Your task to perform on an android device: turn vacation reply on in the gmail app Image 0: 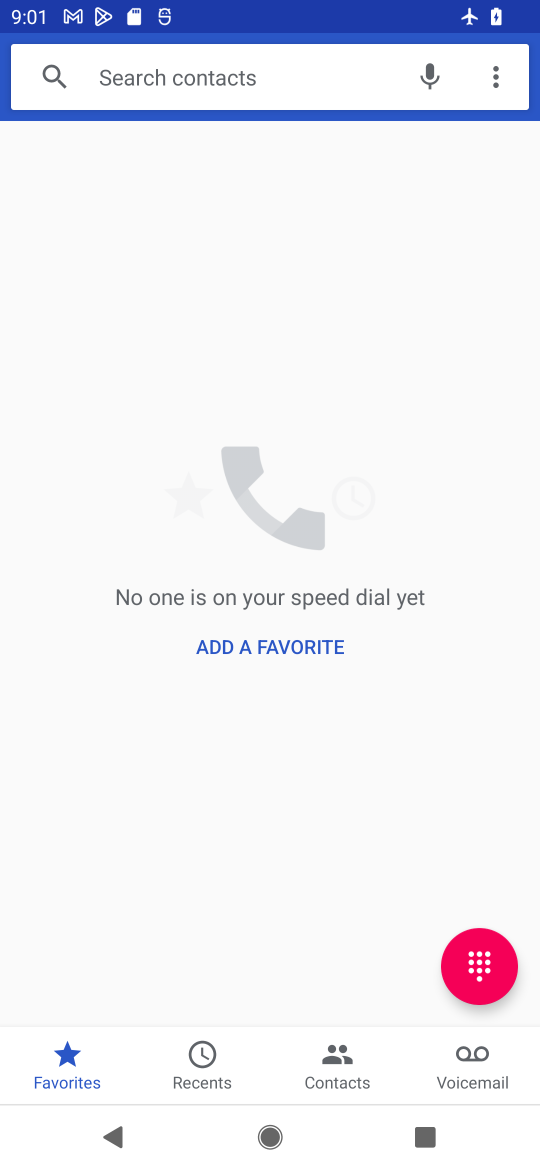
Step 0: press home button
Your task to perform on an android device: turn vacation reply on in the gmail app Image 1: 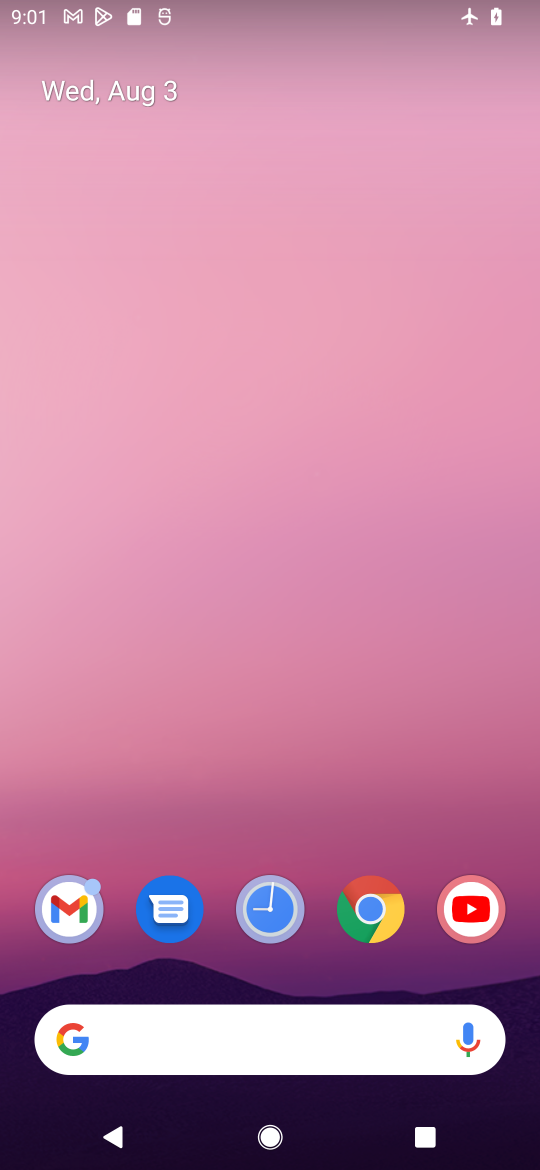
Step 1: drag from (411, 806) to (423, 365)
Your task to perform on an android device: turn vacation reply on in the gmail app Image 2: 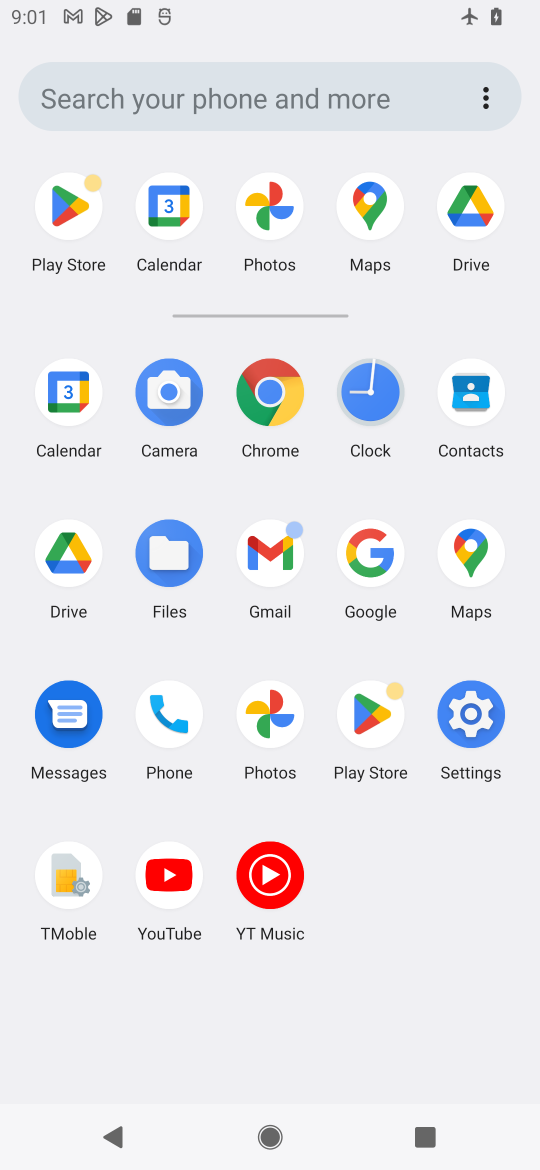
Step 2: click (272, 557)
Your task to perform on an android device: turn vacation reply on in the gmail app Image 3: 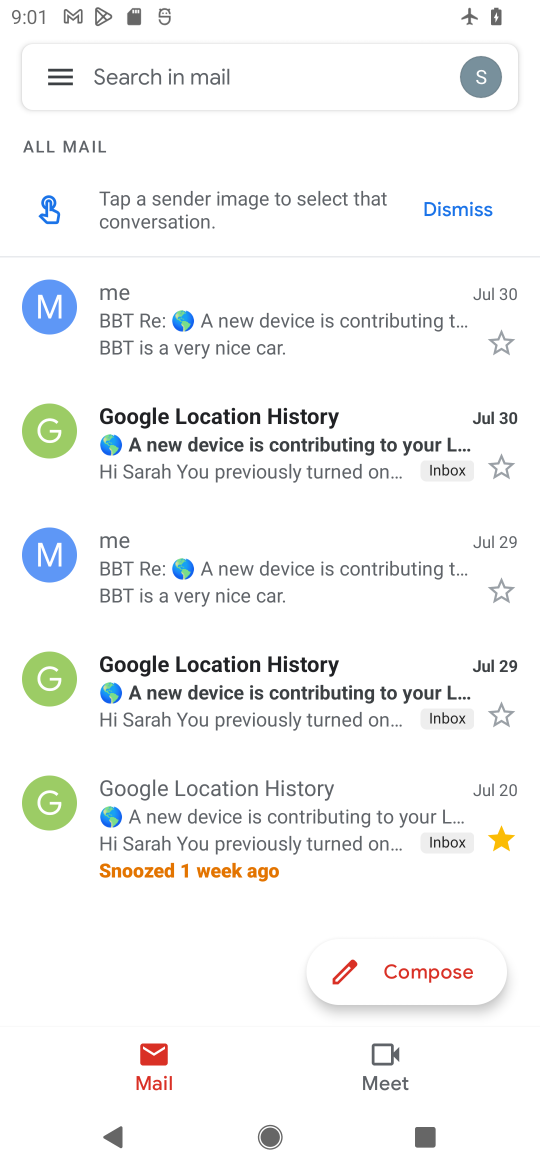
Step 3: click (62, 73)
Your task to perform on an android device: turn vacation reply on in the gmail app Image 4: 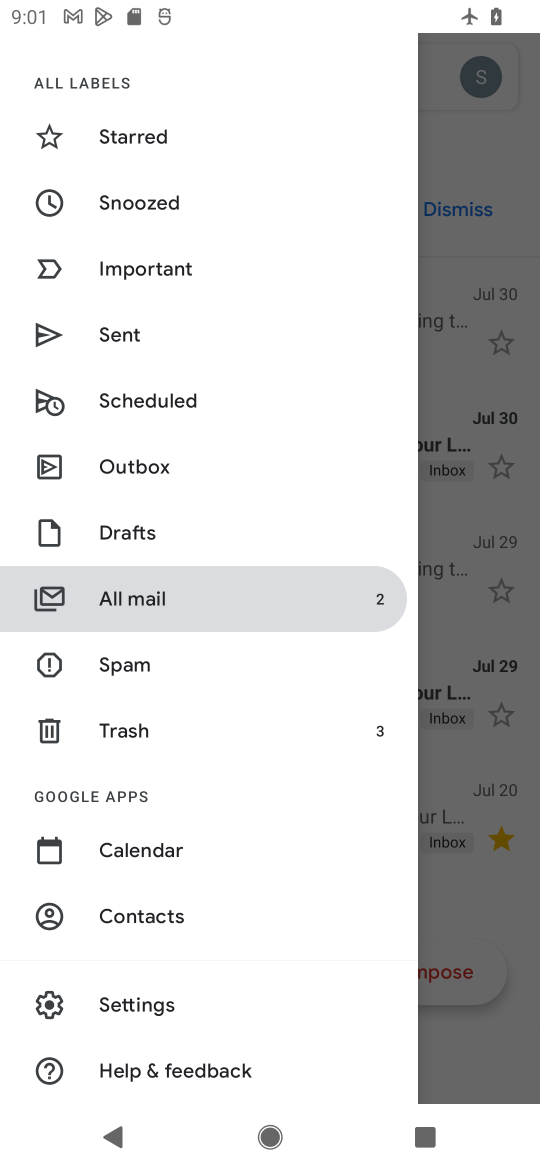
Step 4: drag from (324, 339) to (307, 511)
Your task to perform on an android device: turn vacation reply on in the gmail app Image 5: 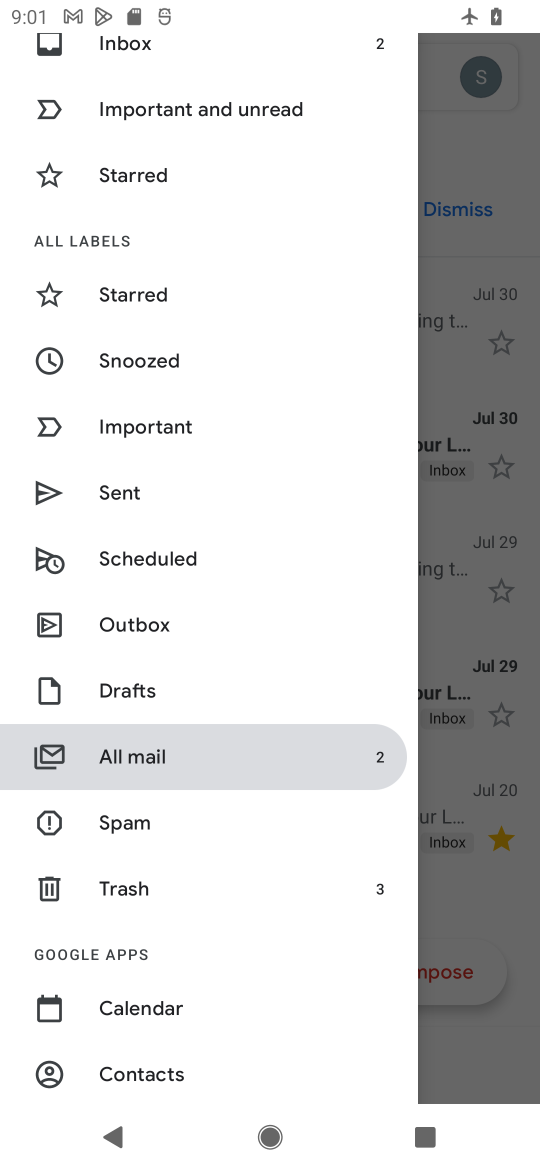
Step 5: drag from (308, 279) to (317, 480)
Your task to perform on an android device: turn vacation reply on in the gmail app Image 6: 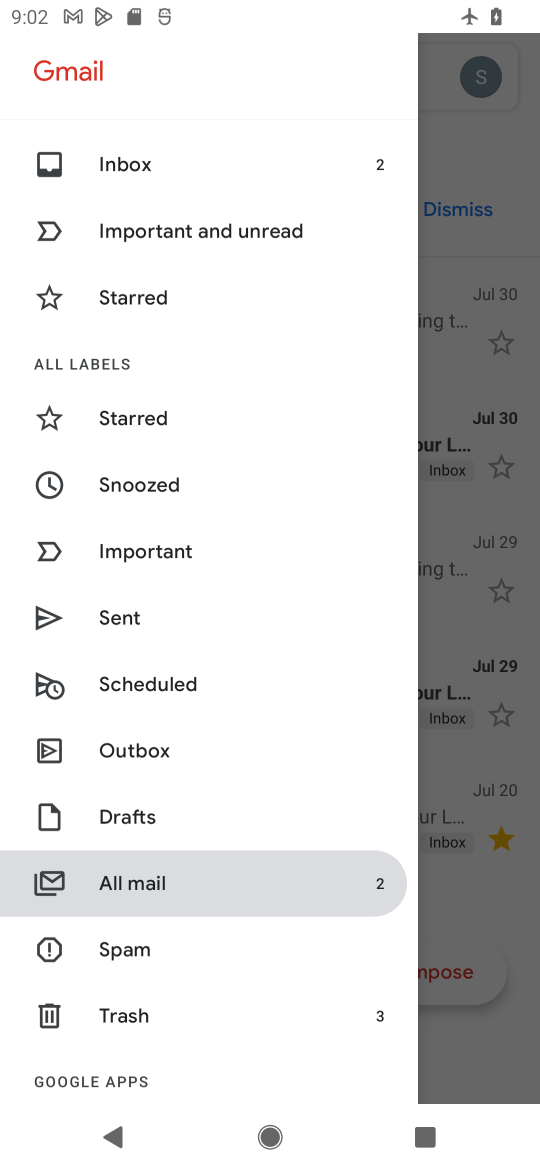
Step 6: drag from (317, 556) to (324, 483)
Your task to perform on an android device: turn vacation reply on in the gmail app Image 7: 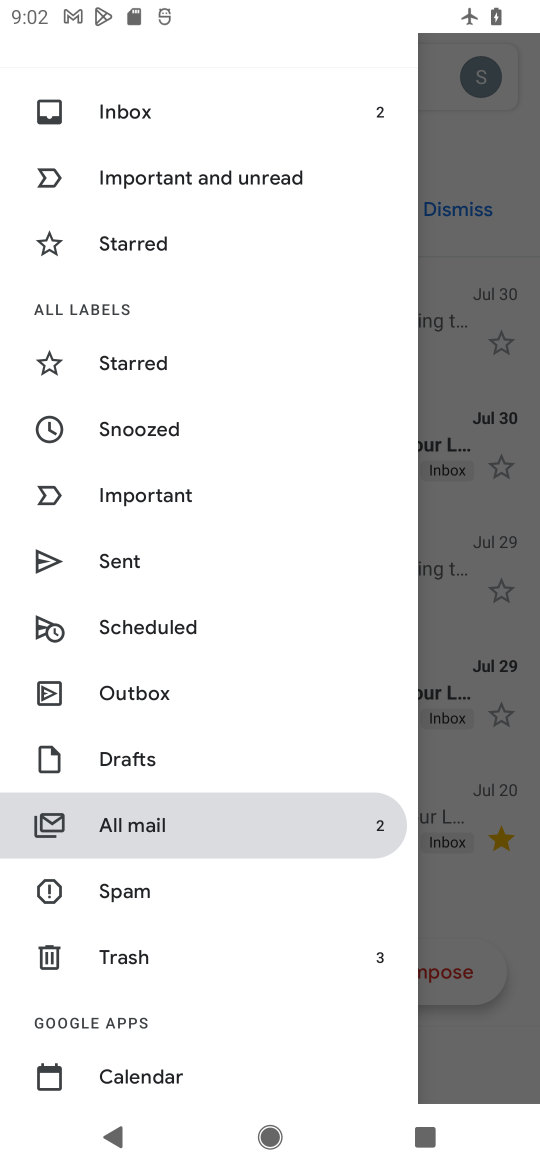
Step 7: drag from (301, 627) to (318, 516)
Your task to perform on an android device: turn vacation reply on in the gmail app Image 8: 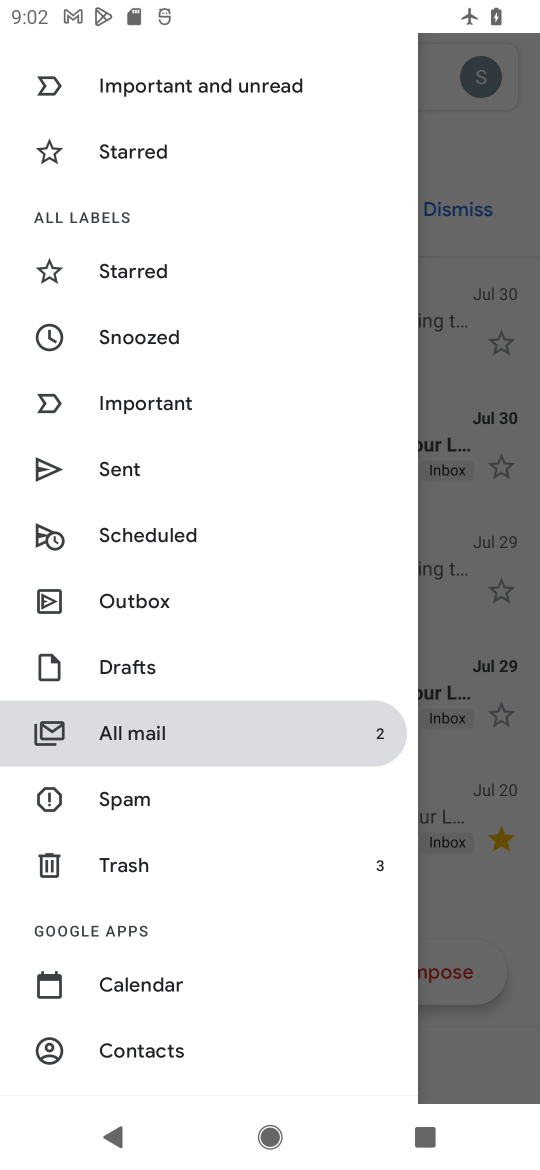
Step 8: drag from (259, 924) to (263, 691)
Your task to perform on an android device: turn vacation reply on in the gmail app Image 9: 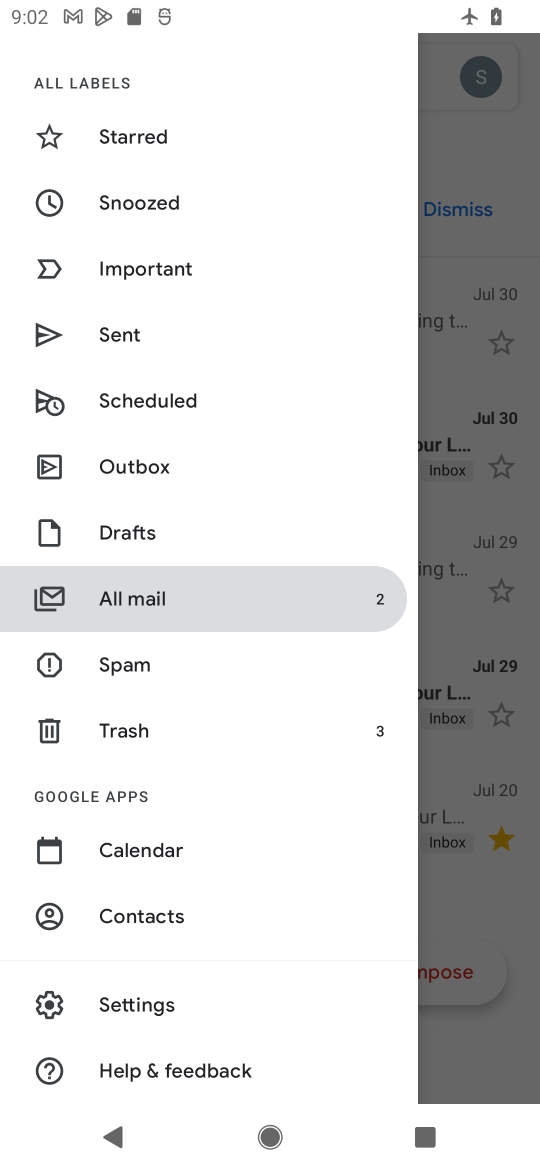
Step 9: click (165, 1013)
Your task to perform on an android device: turn vacation reply on in the gmail app Image 10: 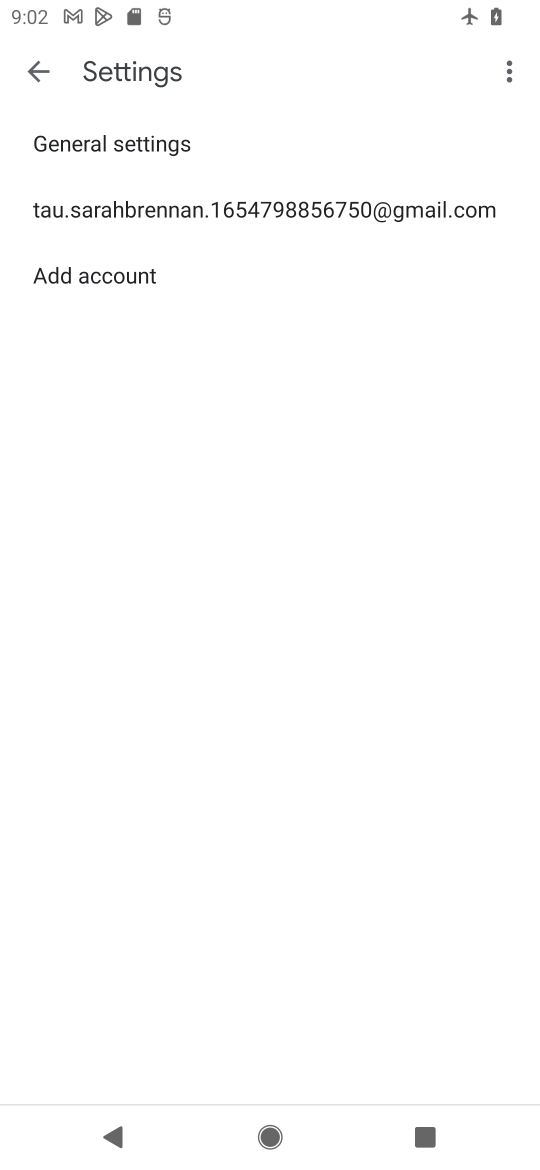
Step 10: click (286, 202)
Your task to perform on an android device: turn vacation reply on in the gmail app Image 11: 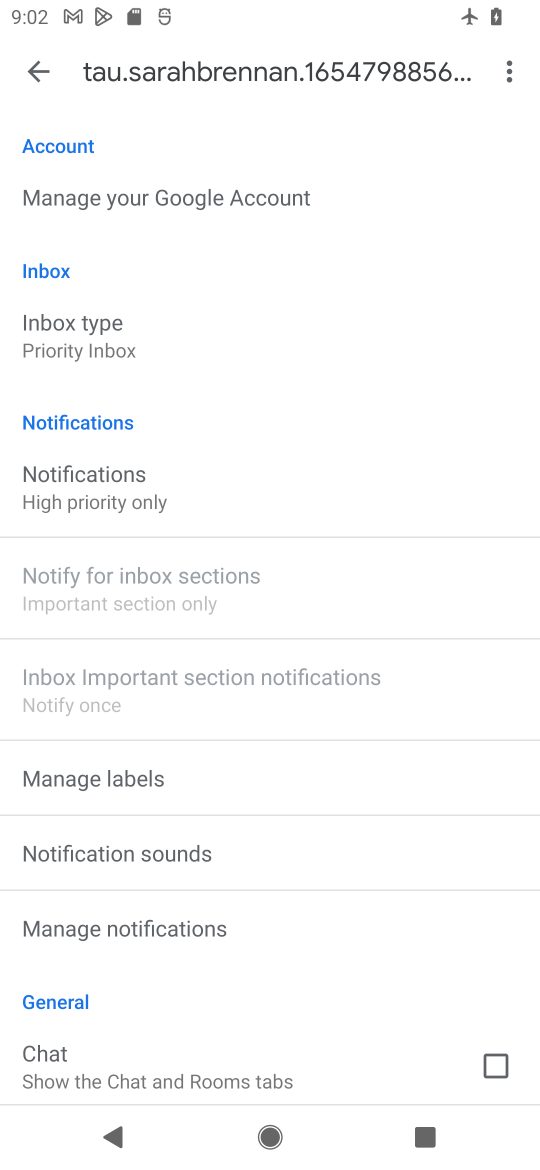
Step 11: drag from (464, 600) to (443, 432)
Your task to perform on an android device: turn vacation reply on in the gmail app Image 12: 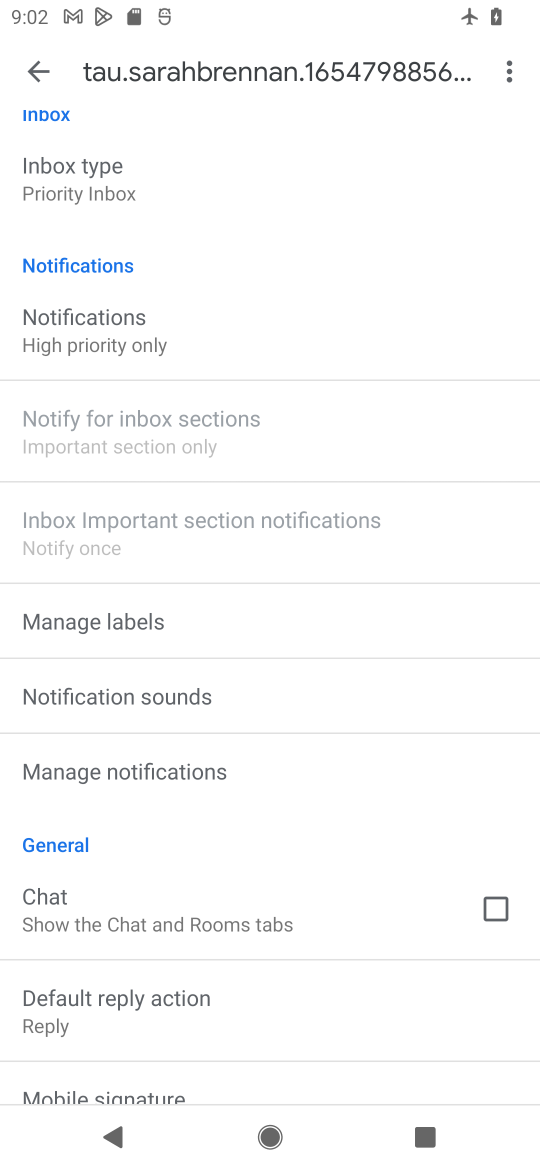
Step 12: drag from (438, 651) to (441, 476)
Your task to perform on an android device: turn vacation reply on in the gmail app Image 13: 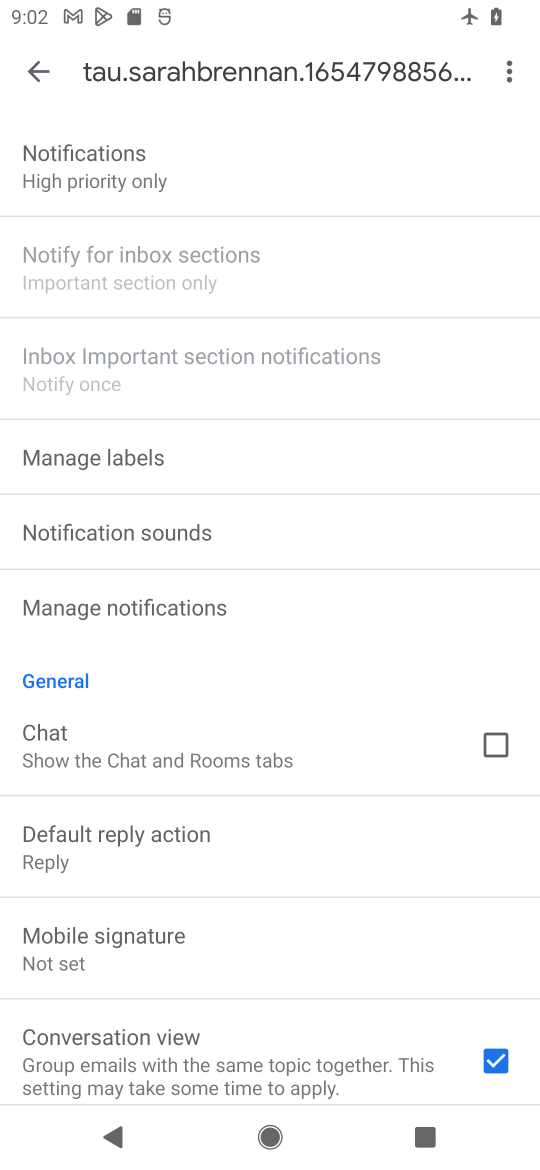
Step 13: drag from (417, 686) to (427, 570)
Your task to perform on an android device: turn vacation reply on in the gmail app Image 14: 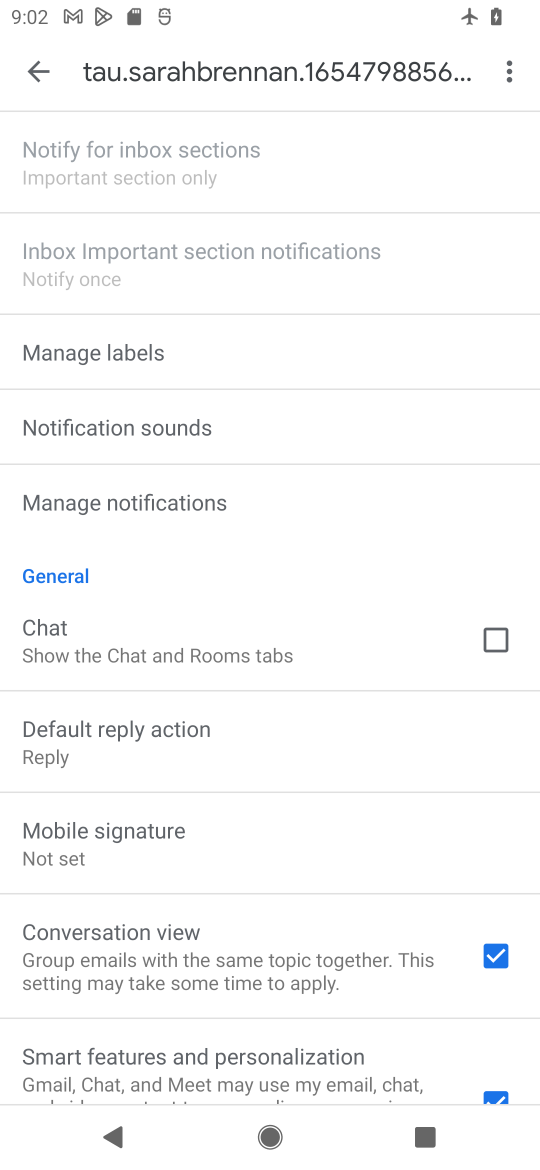
Step 14: drag from (373, 723) to (383, 531)
Your task to perform on an android device: turn vacation reply on in the gmail app Image 15: 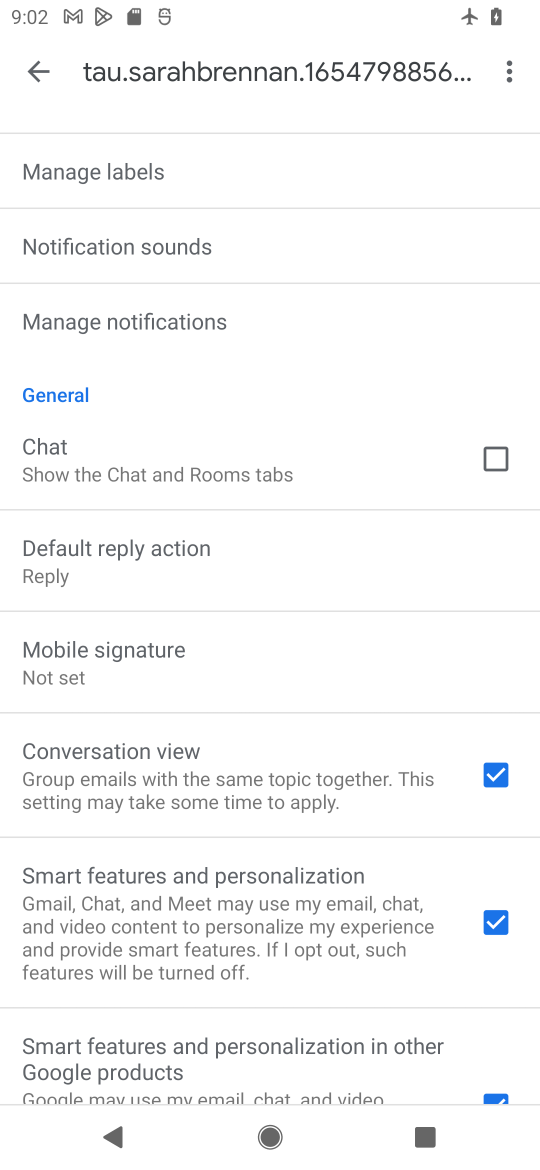
Step 15: drag from (367, 833) to (382, 636)
Your task to perform on an android device: turn vacation reply on in the gmail app Image 16: 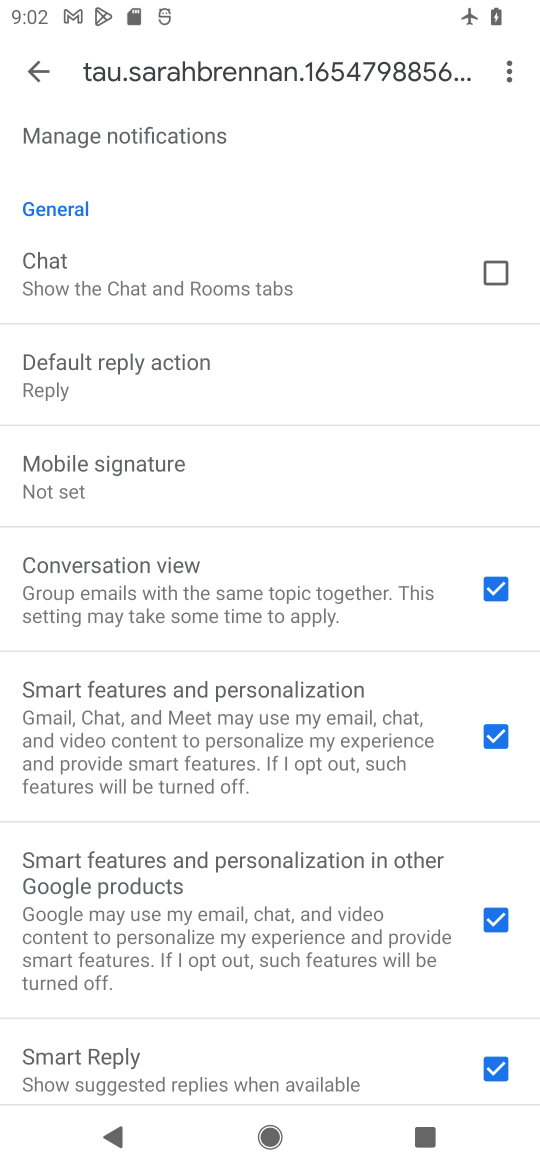
Step 16: drag from (350, 809) to (356, 596)
Your task to perform on an android device: turn vacation reply on in the gmail app Image 17: 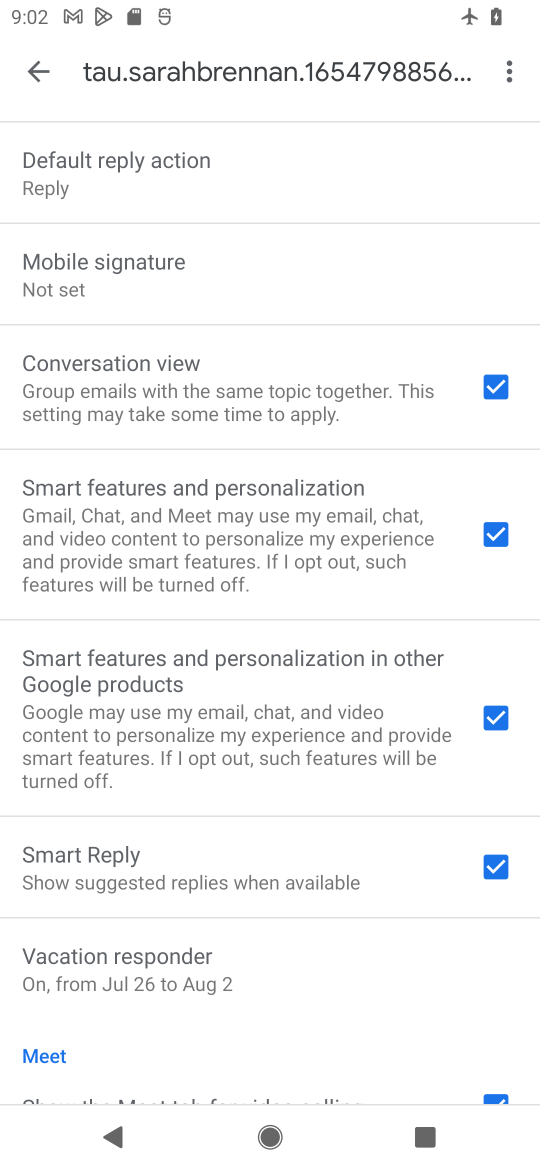
Step 17: drag from (325, 853) to (345, 659)
Your task to perform on an android device: turn vacation reply on in the gmail app Image 18: 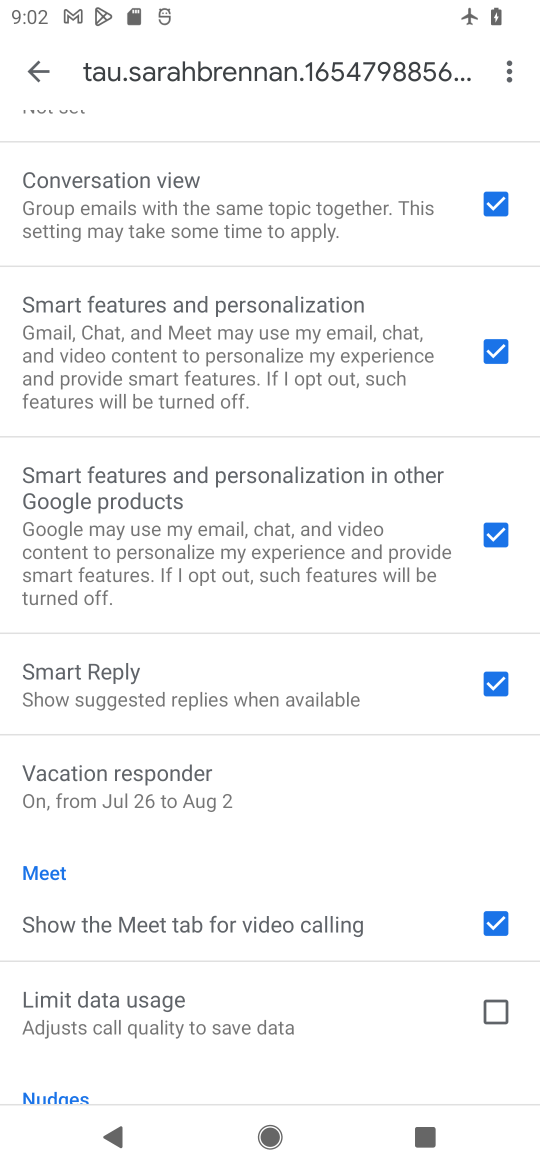
Step 18: drag from (377, 477) to (377, 702)
Your task to perform on an android device: turn vacation reply on in the gmail app Image 19: 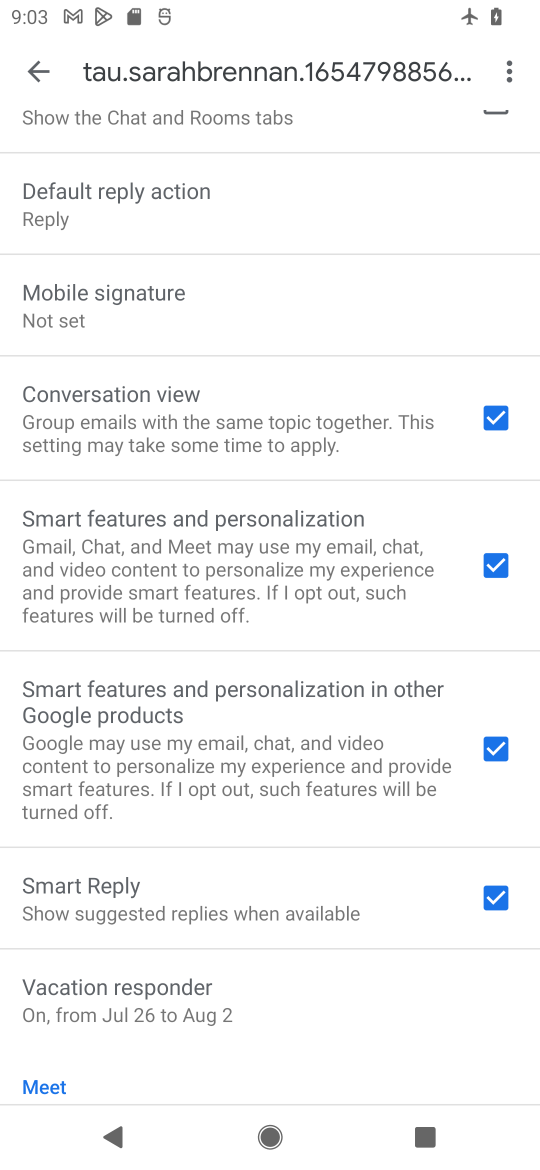
Step 19: click (202, 1015)
Your task to perform on an android device: turn vacation reply on in the gmail app Image 20: 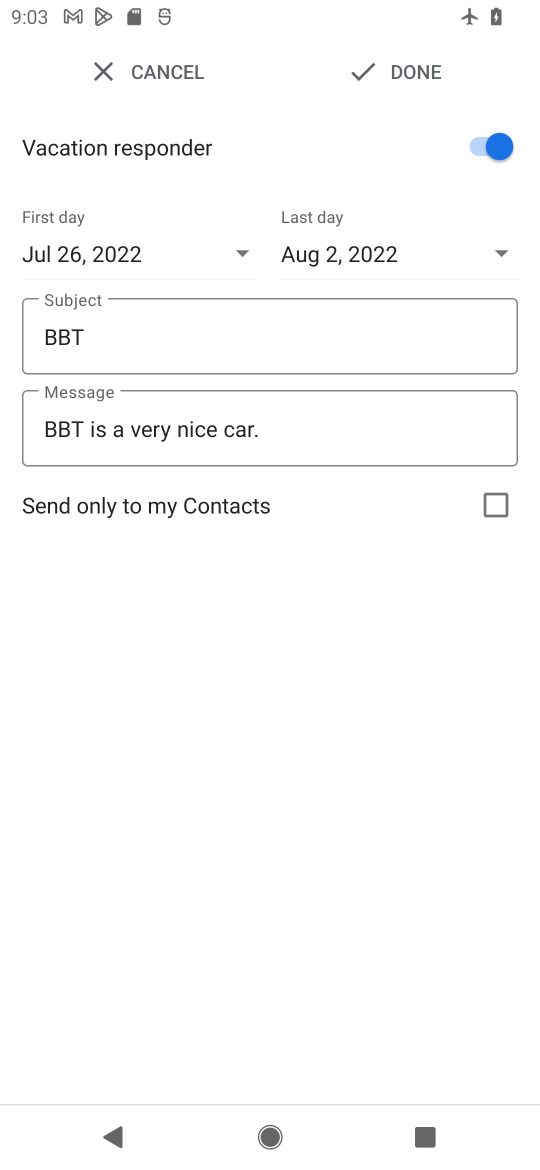
Step 20: task complete